Your task to perform on an android device: find which apps use the phone's location Image 0: 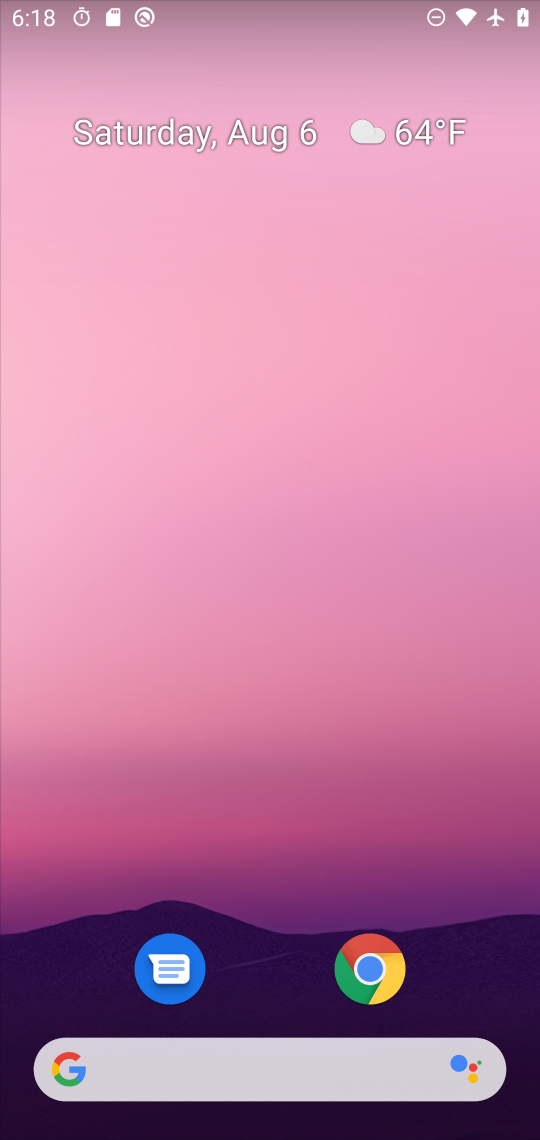
Step 0: press home button
Your task to perform on an android device: find which apps use the phone's location Image 1: 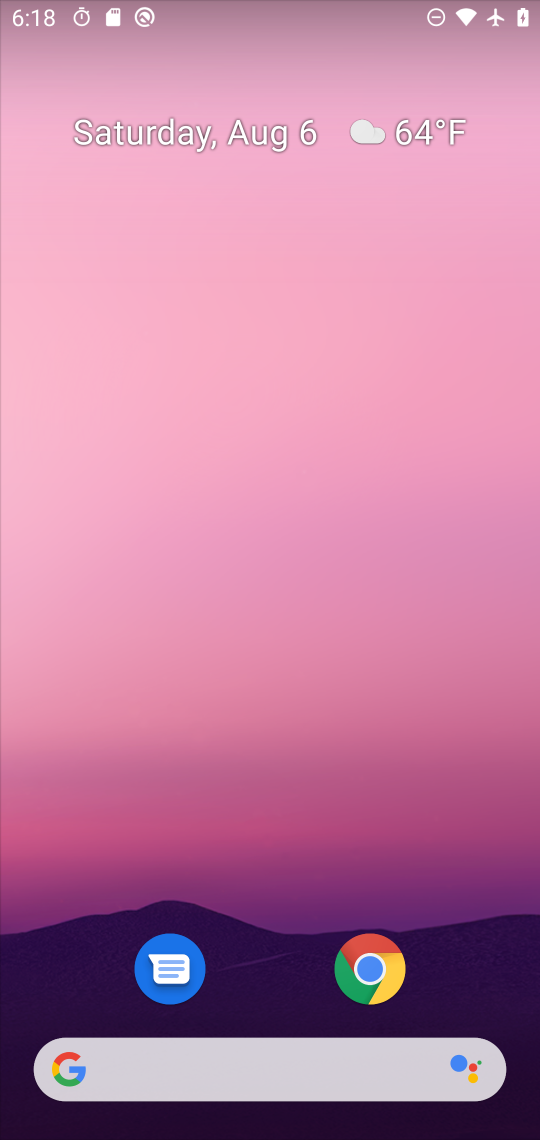
Step 1: drag from (293, 966) to (241, 307)
Your task to perform on an android device: find which apps use the phone's location Image 2: 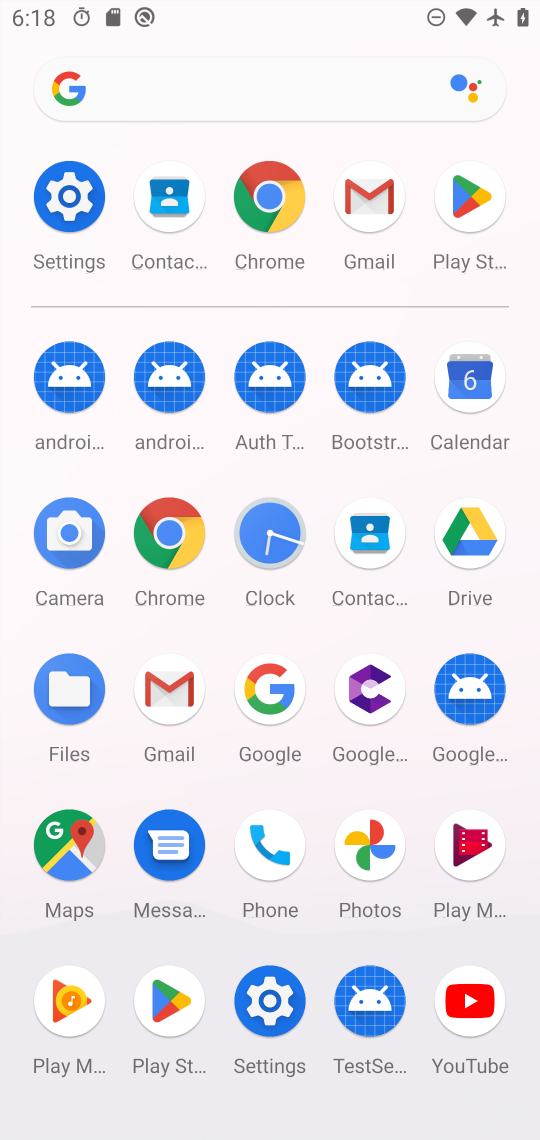
Step 2: click (80, 202)
Your task to perform on an android device: find which apps use the phone's location Image 3: 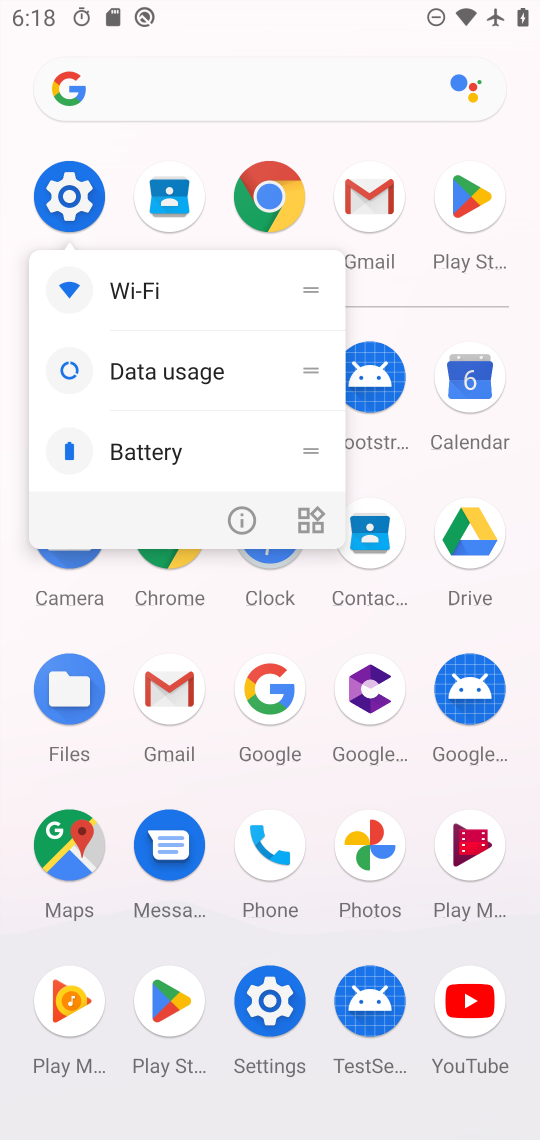
Step 3: click (86, 215)
Your task to perform on an android device: find which apps use the phone's location Image 4: 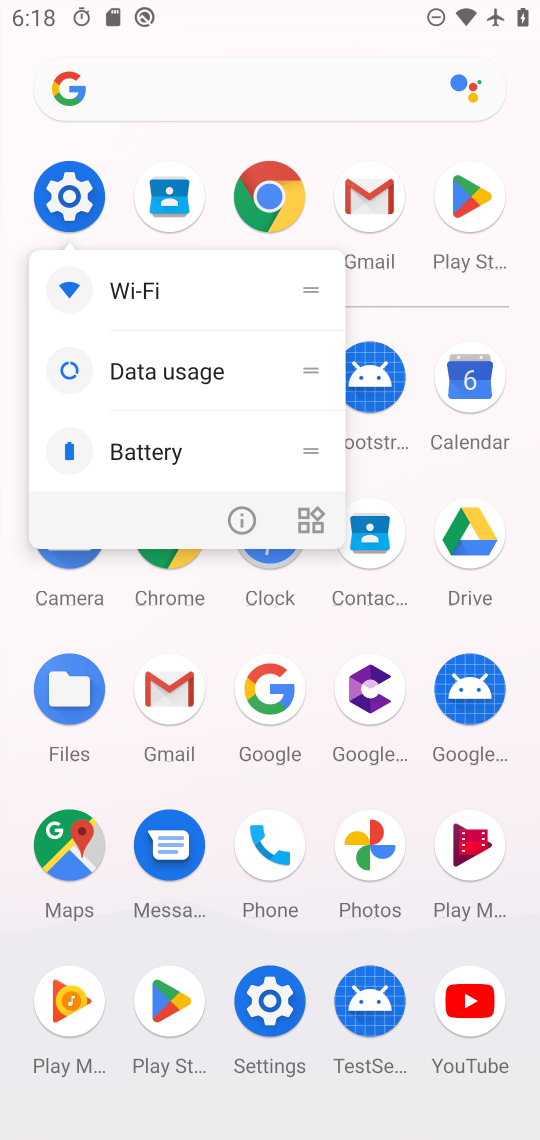
Step 4: click (95, 250)
Your task to perform on an android device: find which apps use the phone's location Image 5: 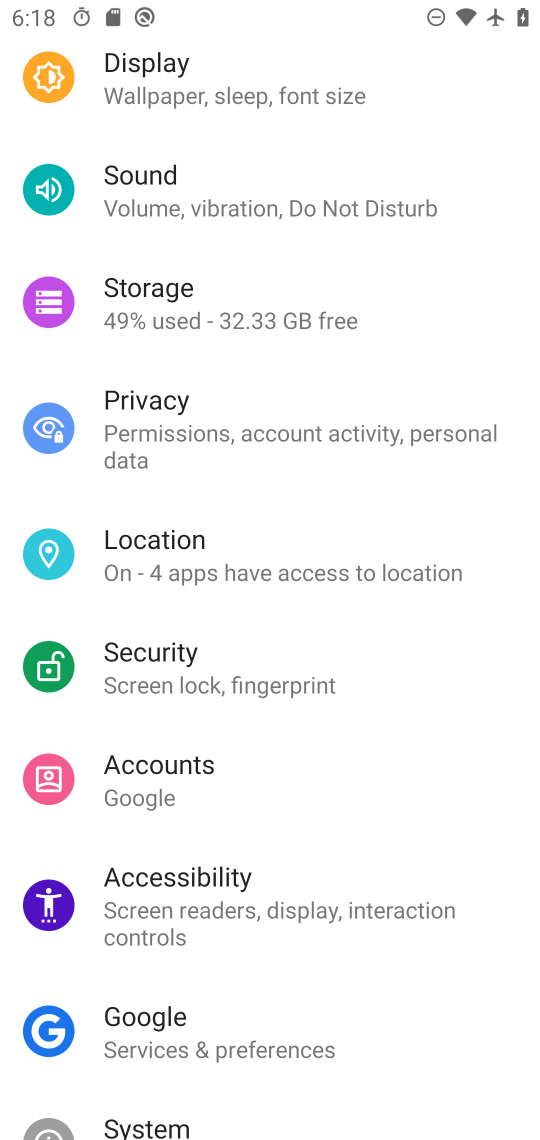
Step 5: click (143, 560)
Your task to perform on an android device: find which apps use the phone's location Image 6: 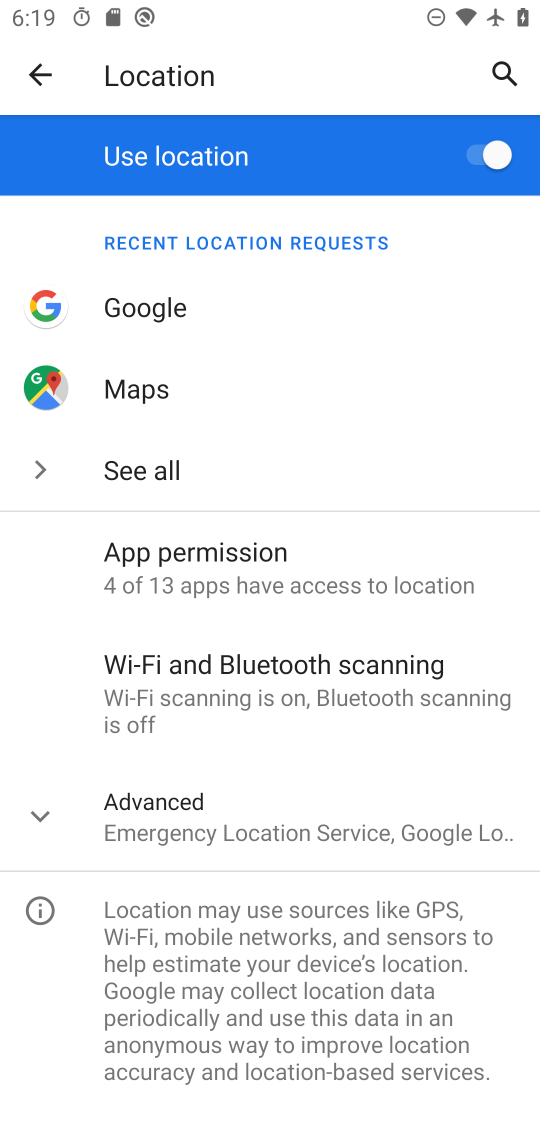
Step 6: click (183, 568)
Your task to perform on an android device: find which apps use the phone's location Image 7: 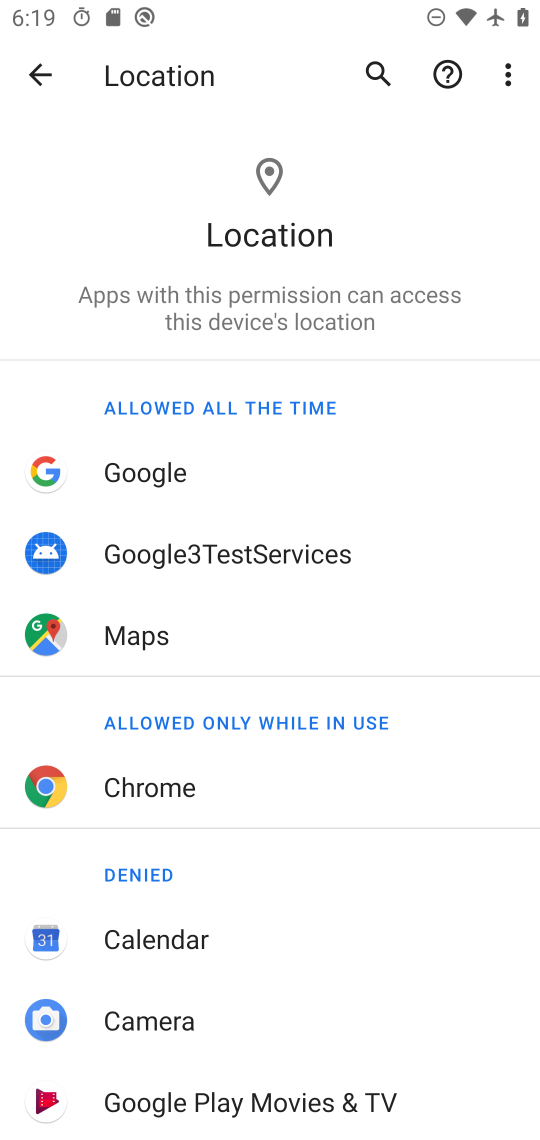
Step 7: task complete